Your task to perform on an android device: Search for sushi restaurants on Maps Image 0: 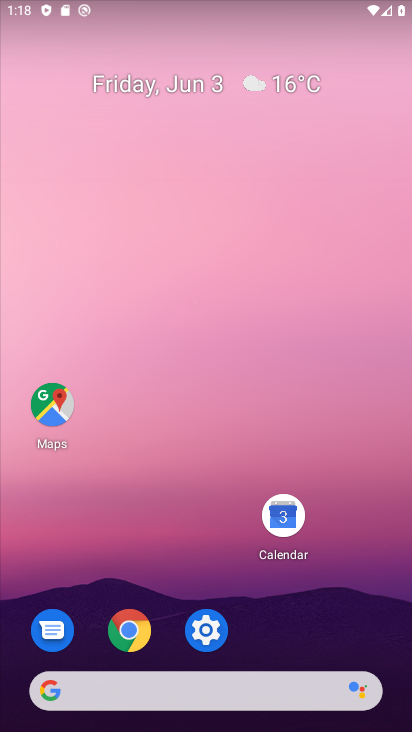
Step 0: drag from (225, 377) to (213, 256)
Your task to perform on an android device: Search for sushi restaurants on Maps Image 1: 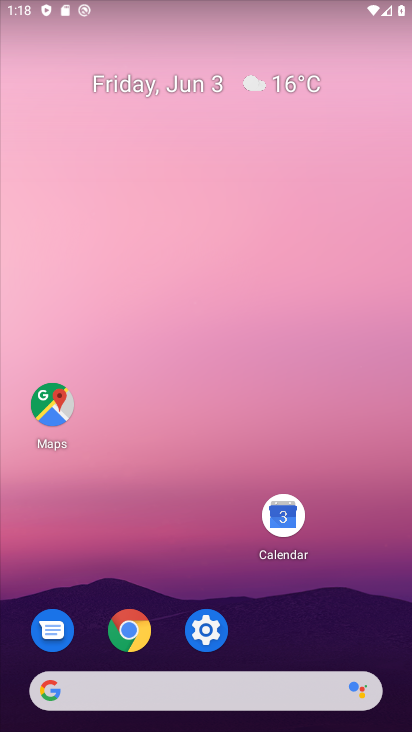
Step 1: drag from (264, 710) to (217, 127)
Your task to perform on an android device: Search for sushi restaurants on Maps Image 2: 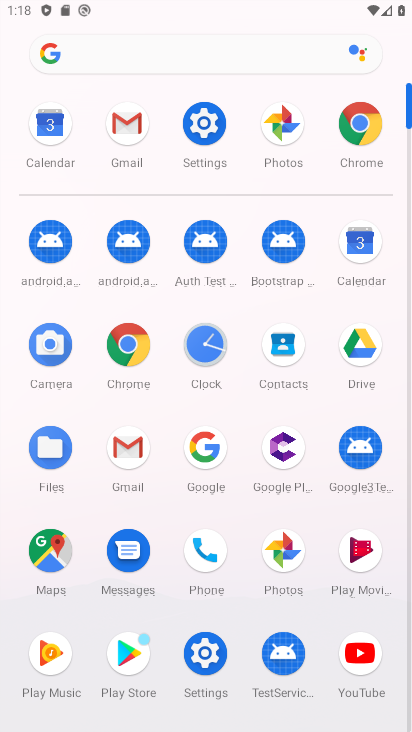
Step 2: click (37, 560)
Your task to perform on an android device: Search for sushi restaurants on Maps Image 3: 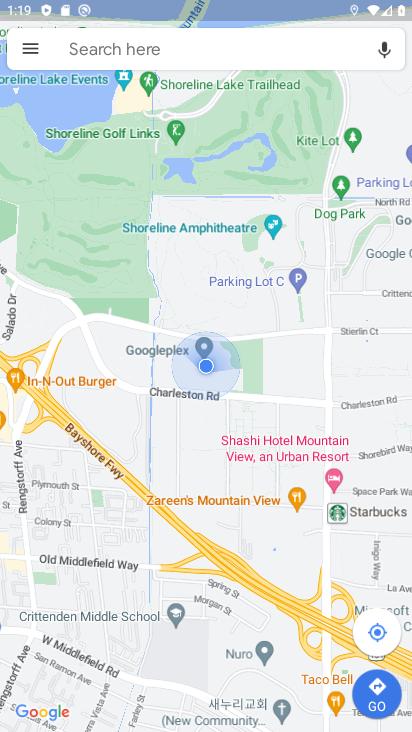
Step 3: click (124, 44)
Your task to perform on an android device: Search for sushi restaurants on Maps Image 4: 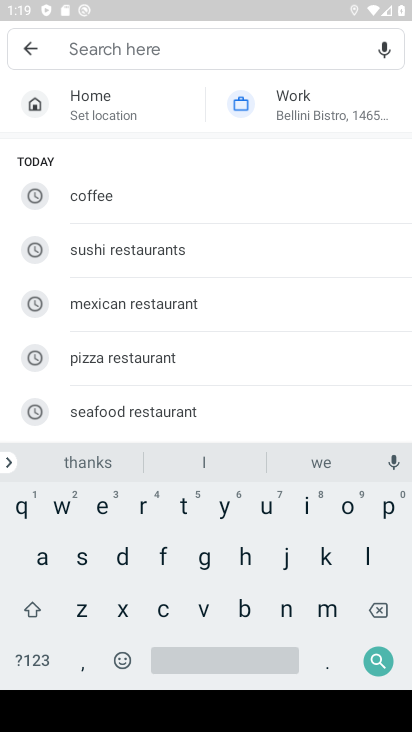
Step 4: click (143, 252)
Your task to perform on an android device: Search for sushi restaurants on Maps Image 5: 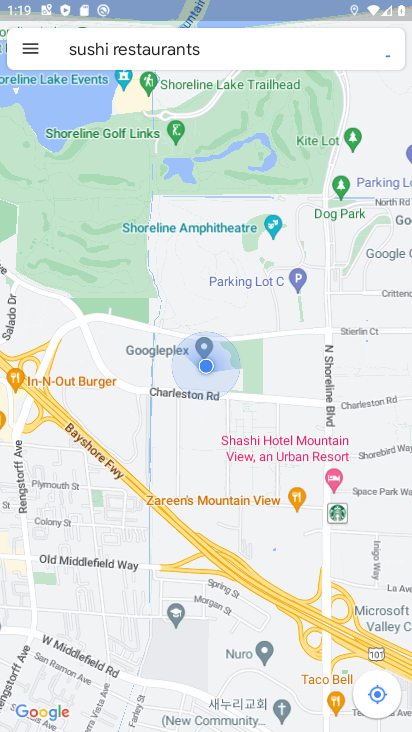
Step 5: task complete